Your task to perform on an android device: turn on improve location accuracy Image 0: 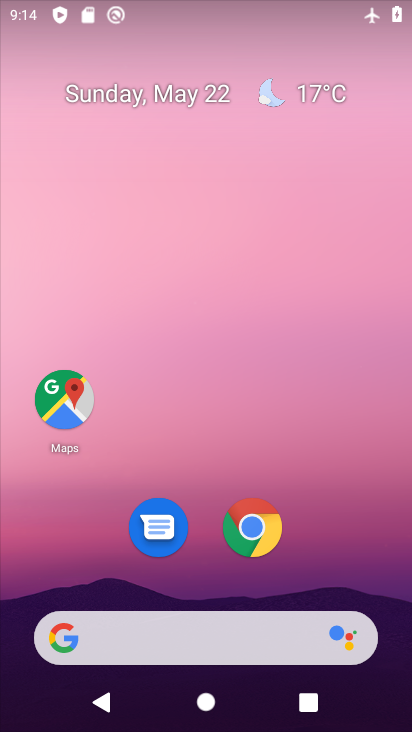
Step 0: drag from (345, 524) to (269, 37)
Your task to perform on an android device: turn on improve location accuracy Image 1: 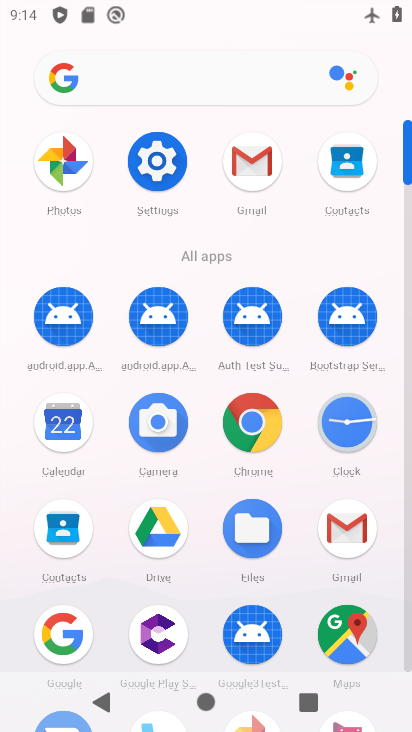
Step 1: click (153, 156)
Your task to perform on an android device: turn on improve location accuracy Image 2: 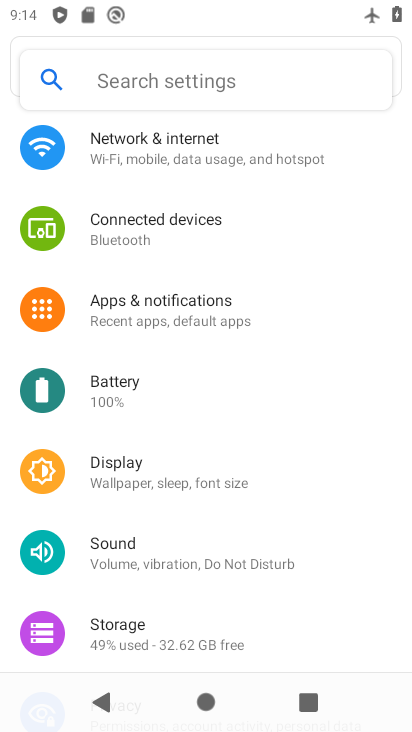
Step 2: drag from (223, 530) to (225, 158)
Your task to perform on an android device: turn on improve location accuracy Image 3: 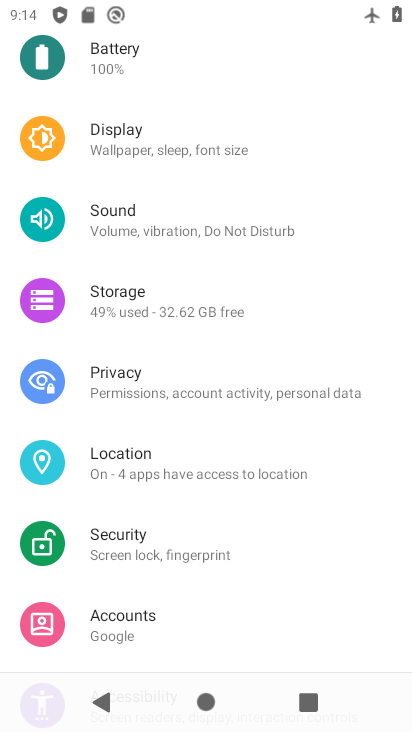
Step 3: click (133, 451)
Your task to perform on an android device: turn on improve location accuracy Image 4: 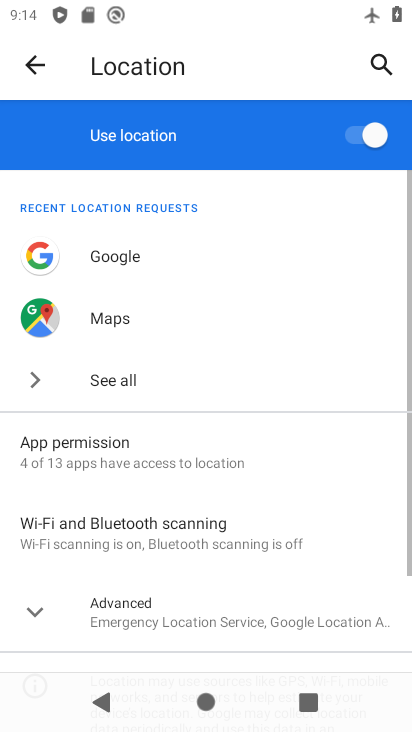
Step 4: click (33, 607)
Your task to perform on an android device: turn on improve location accuracy Image 5: 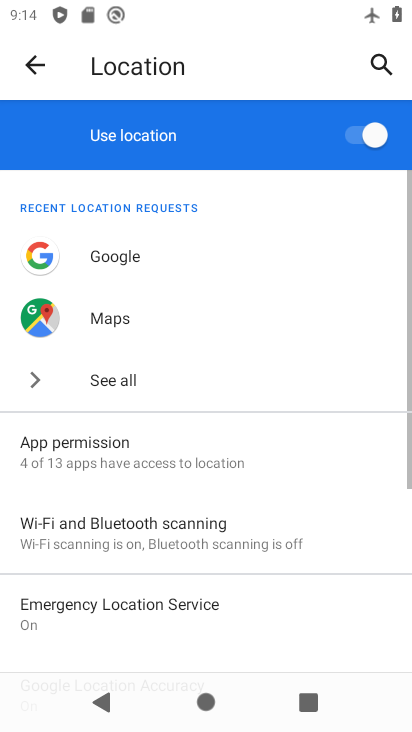
Step 5: drag from (295, 490) to (237, 156)
Your task to perform on an android device: turn on improve location accuracy Image 6: 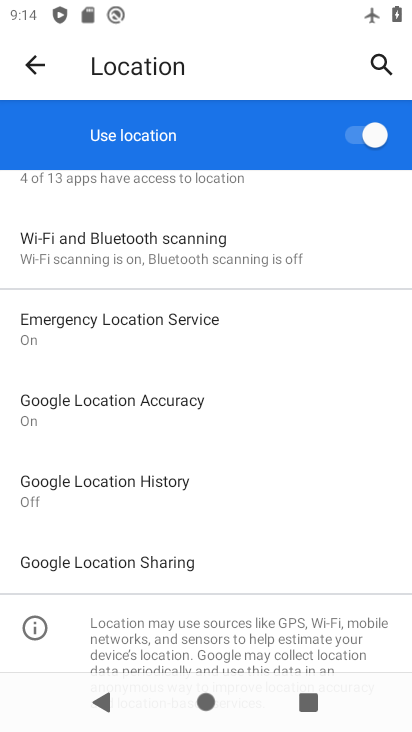
Step 6: click (129, 390)
Your task to perform on an android device: turn on improve location accuracy Image 7: 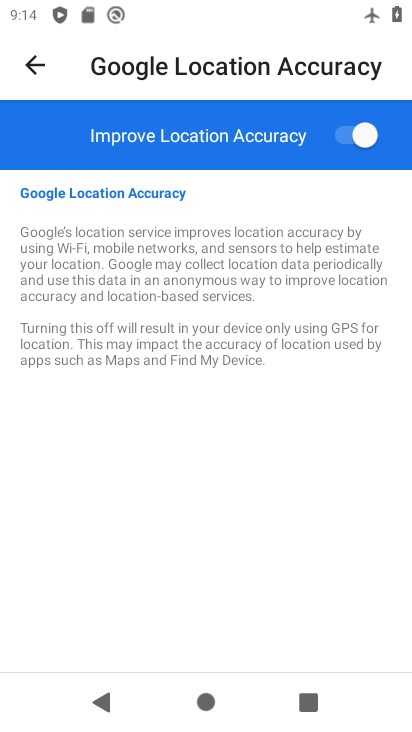
Step 7: task complete